Your task to perform on an android device: Open Google Chrome Image 0: 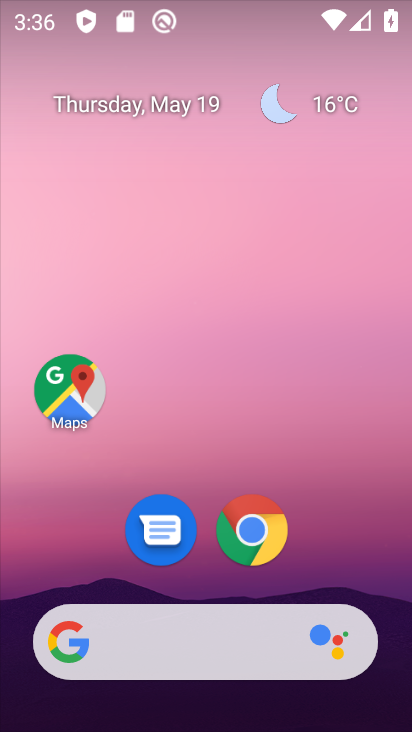
Step 0: click (249, 539)
Your task to perform on an android device: Open Google Chrome Image 1: 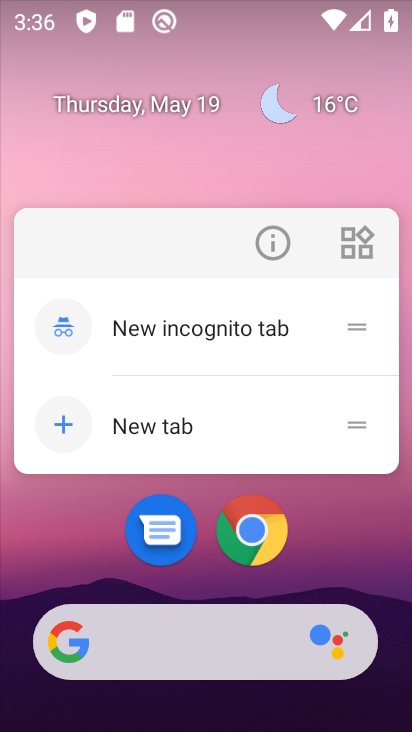
Step 1: click (249, 539)
Your task to perform on an android device: Open Google Chrome Image 2: 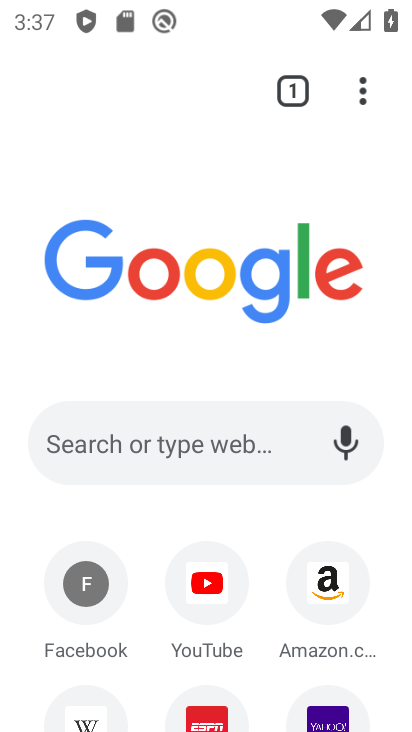
Step 2: task complete